Your task to perform on an android device: check google app version Image 0: 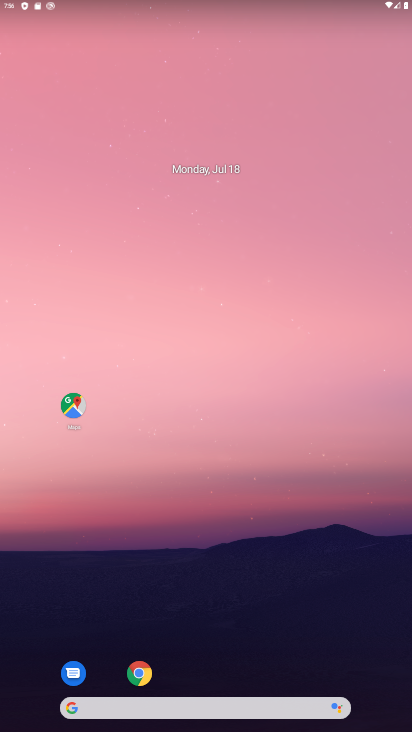
Step 0: click (65, 715)
Your task to perform on an android device: check google app version Image 1: 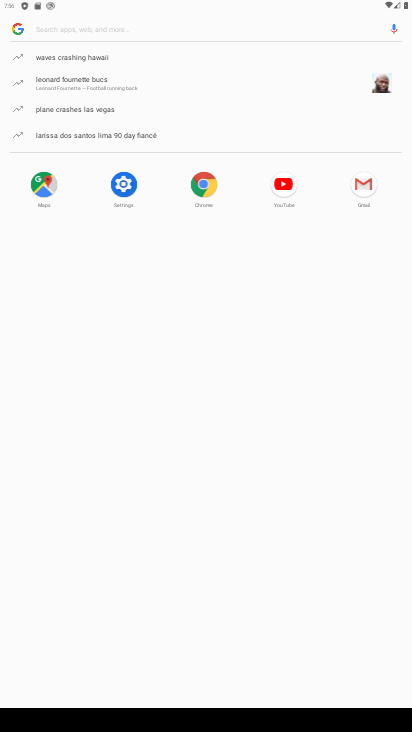
Step 1: click (13, 29)
Your task to perform on an android device: check google app version Image 2: 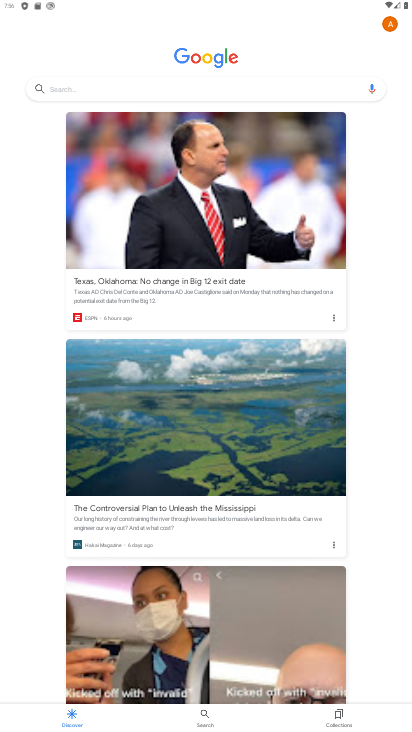
Step 2: click (390, 23)
Your task to perform on an android device: check google app version Image 3: 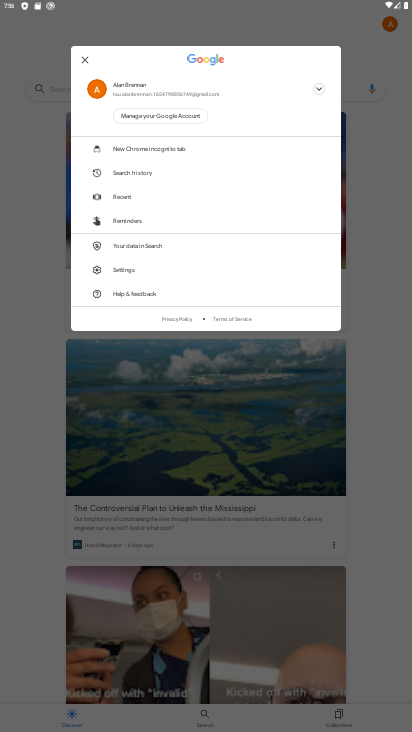
Step 3: click (130, 272)
Your task to perform on an android device: check google app version Image 4: 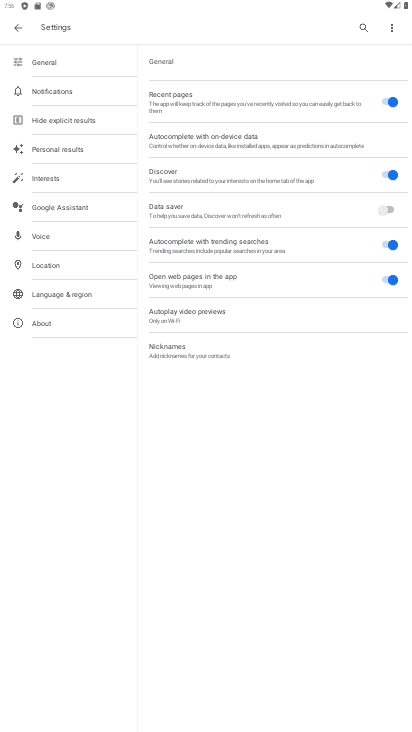
Step 4: click (58, 322)
Your task to perform on an android device: check google app version Image 5: 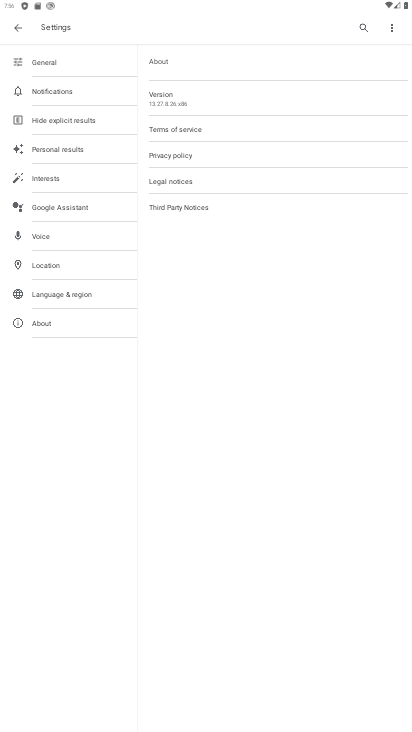
Step 5: task complete